Your task to perform on an android device: turn off javascript in the chrome app Image 0: 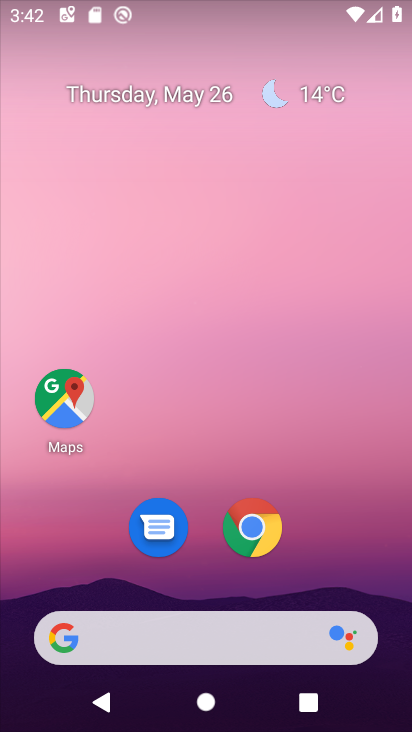
Step 0: drag from (337, 595) to (240, 168)
Your task to perform on an android device: turn off javascript in the chrome app Image 1: 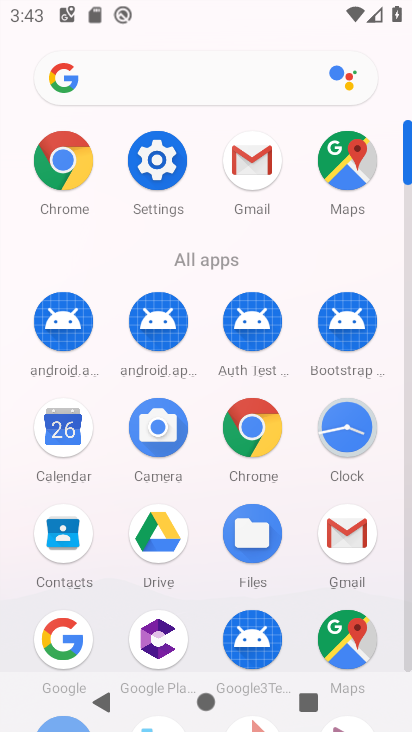
Step 1: click (272, 415)
Your task to perform on an android device: turn off javascript in the chrome app Image 2: 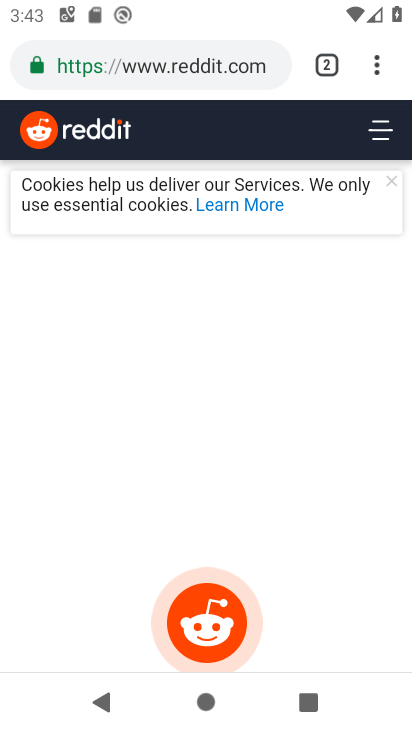
Step 2: click (369, 79)
Your task to perform on an android device: turn off javascript in the chrome app Image 3: 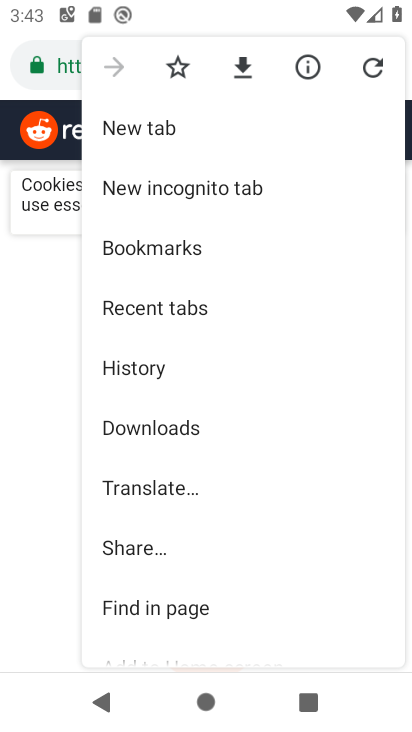
Step 3: drag from (153, 640) to (140, 218)
Your task to perform on an android device: turn off javascript in the chrome app Image 4: 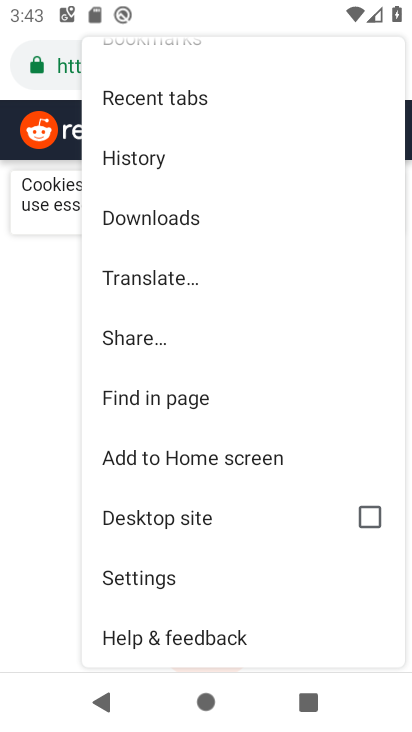
Step 4: click (159, 580)
Your task to perform on an android device: turn off javascript in the chrome app Image 5: 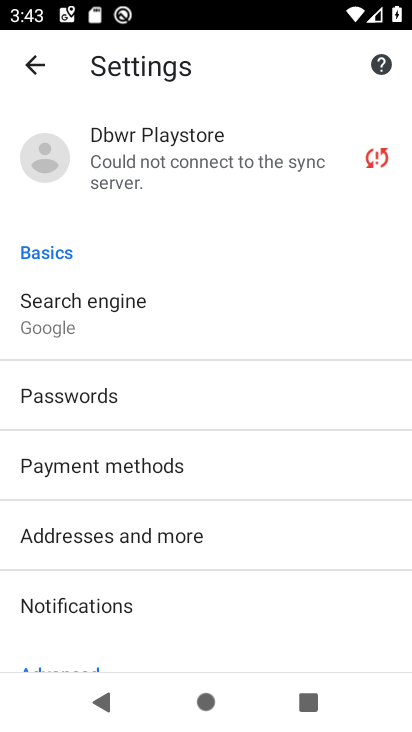
Step 5: drag from (160, 617) to (110, 194)
Your task to perform on an android device: turn off javascript in the chrome app Image 6: 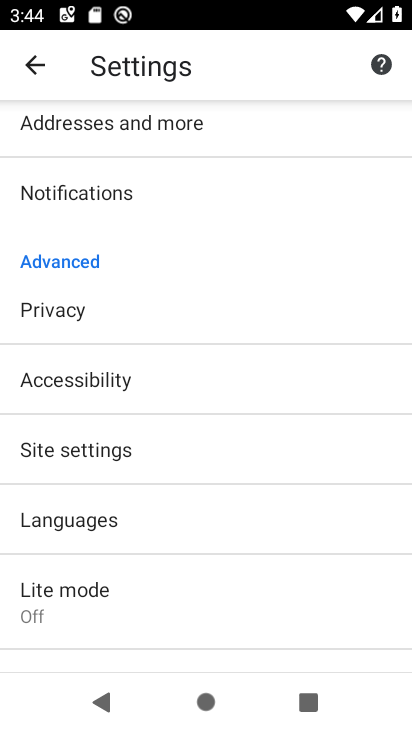
Step 6: click (122, 462)
Your task to perform on an android device: turn off javascript in the chrome app Image 7: 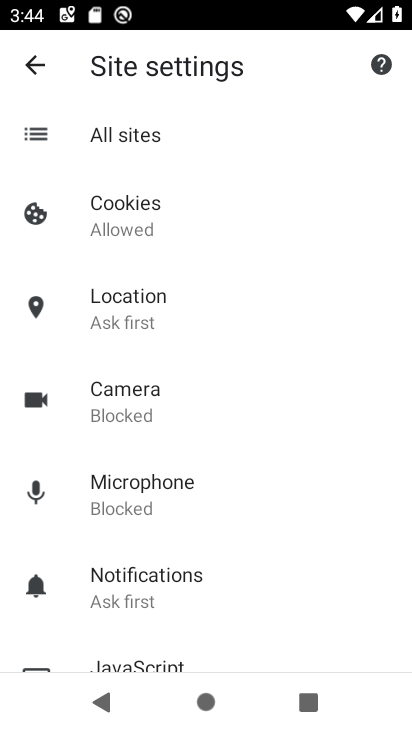
Step 7: drag from (185, 638) to (183, 259)
Your task to perform on an android device: turn off javascript in the chrome app Image 8: 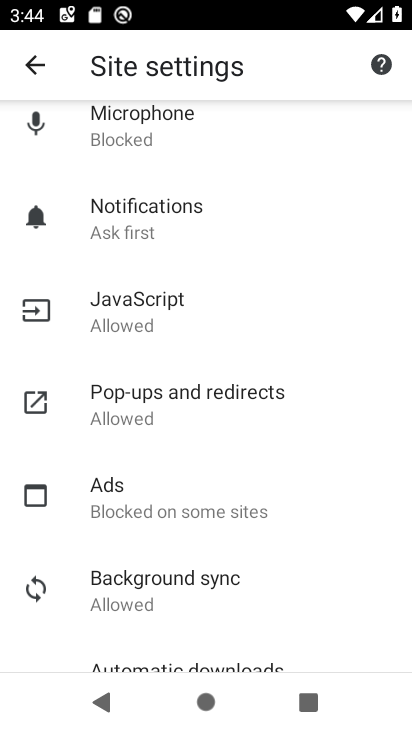
Step 8: click (181, 295)
Your task to perform on an android device: turn off javascript in the chrome app Image 9: 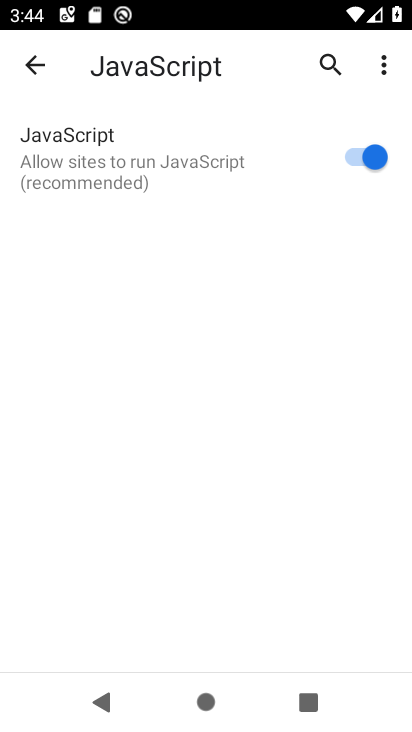
Step 9: click (363, 160)
Your task to perform on an android device: turn off javascript in the chrome app Image 10: 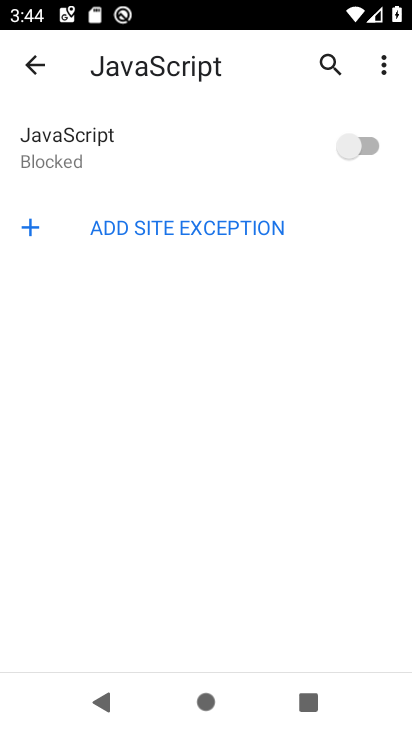
Step 10: task complete